Your task to perform on an android device: Open the calendar and show me this week's events Image 0: 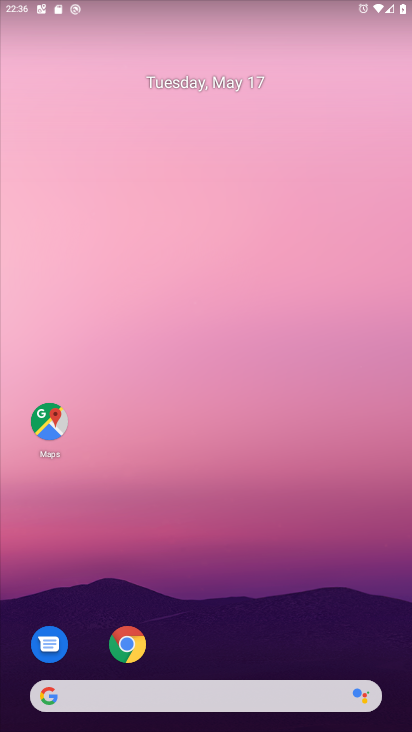
Step 0: press home button
Your task to perform on an android device: Open the calendar and show me this week's events Image 1: 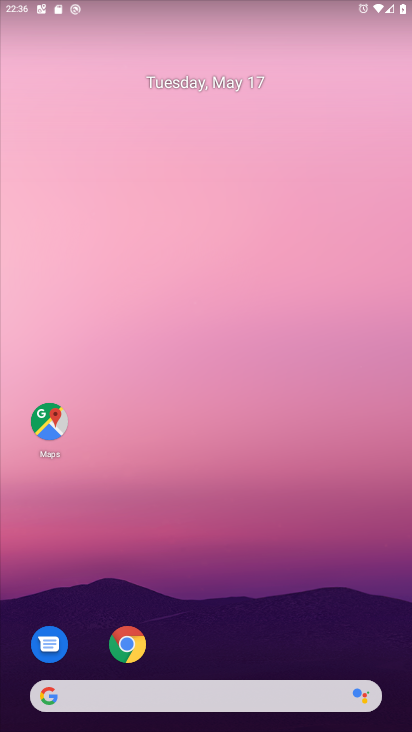
Step 1: drag from (251, 610) to (258, 8)
Your task to perform on an android device: Open the calendar and show me this week's events Image 2: 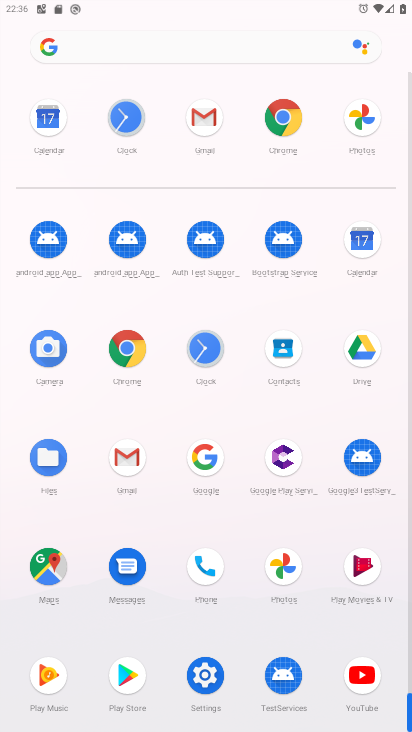
Step 2: click (365, 230)
Your task to perform on an android device: Open the calendar and show me this week's events Image 3: 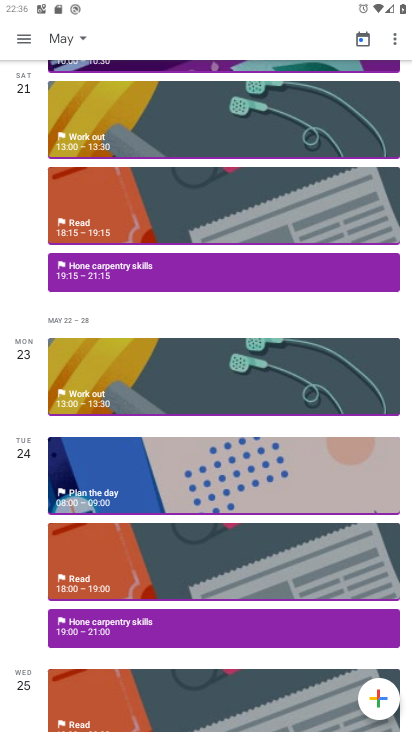
Step 3: click (20, 42)
Your task to perform on an android device: Open the calendar and show me this week's events Image 4: 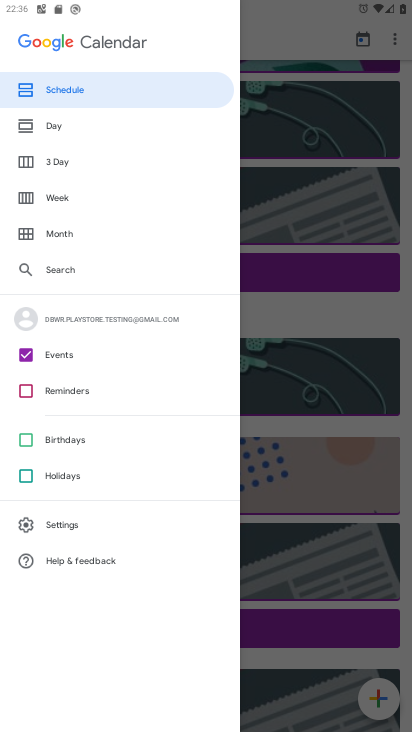
Step 4: click (49, 195)
Your task to perform on an android device: Open the calendar and show me this week's events Image 5: 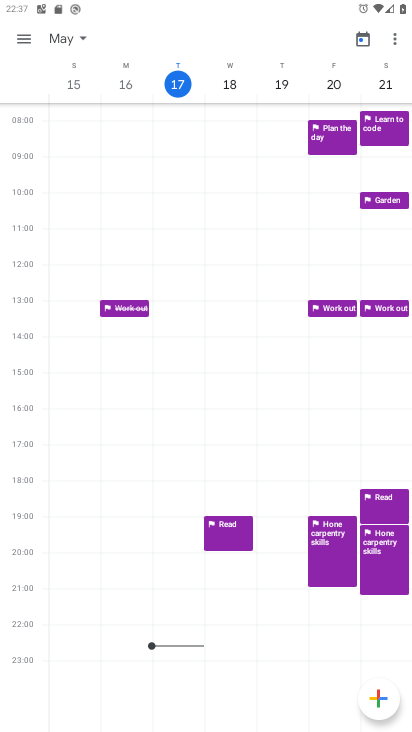
Step 5: click (180, 80)
Your task to perform on an android device: Open the calendar and show me this week's events Image 6: 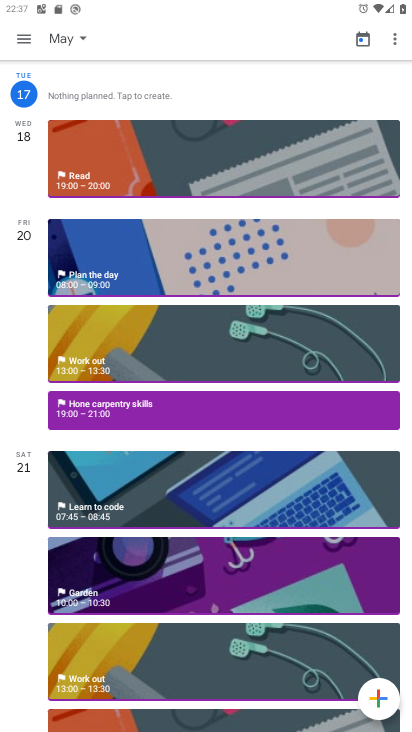
Step 6: click (18, 39)
Your task to perform on an android device: Open the calendar and show me this week's events Image 7: 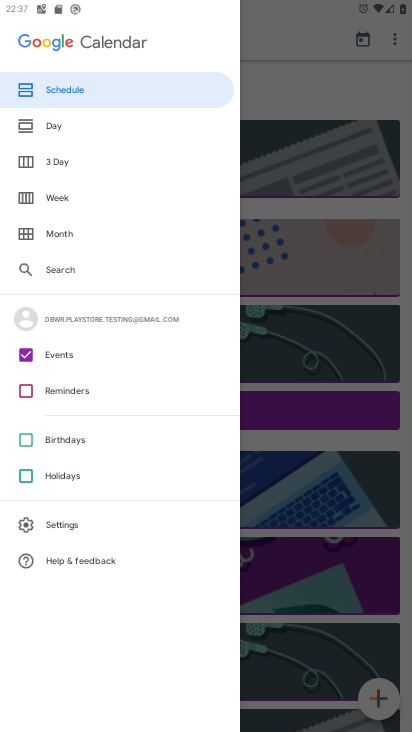
Step 7: click (64, 94)
Your task to perform on an android device: Open the calendar and show me this week's events Image 8: 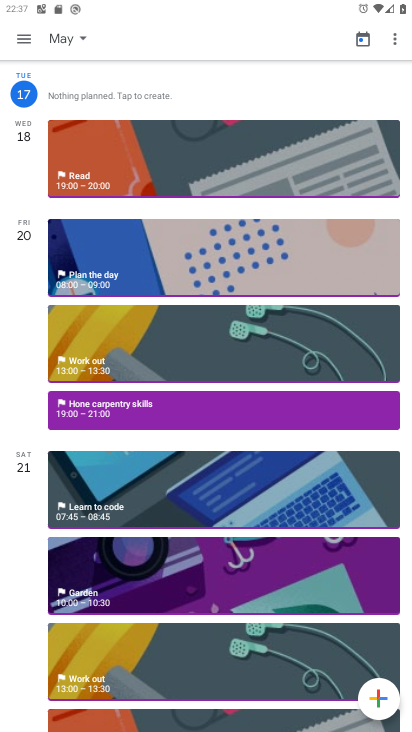
Step 8: task complete